Your task to perform on an android device: Open Wikipedia Image 0: 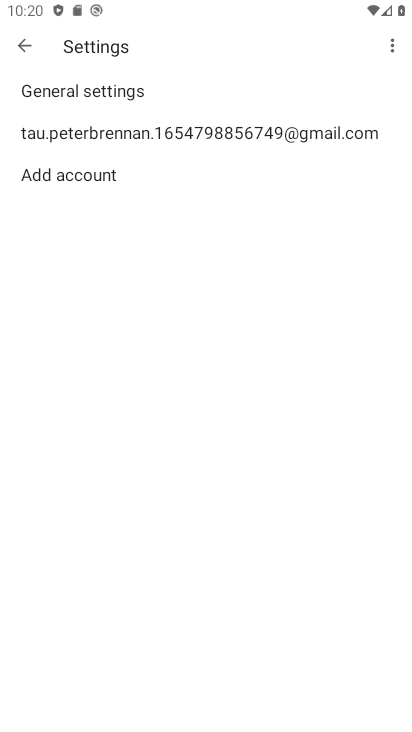
Step 0: press home button
Your task to perform on an android device: Open Wikipedia Image 1: 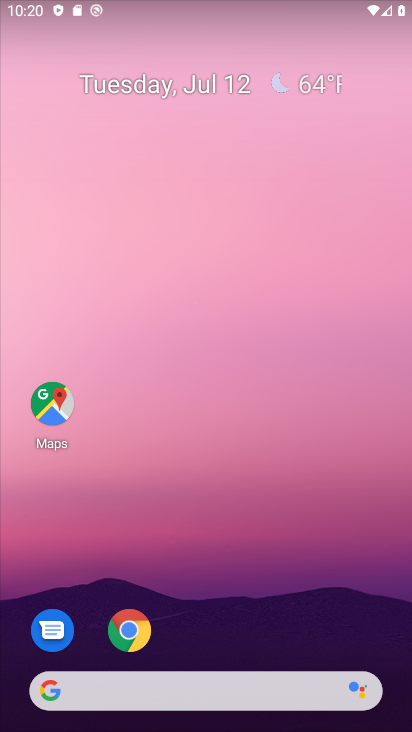
Step 1: drag from (367, 614) to (358, 229)
Your task to perform on an android device: Open Wikipedia Image 2: 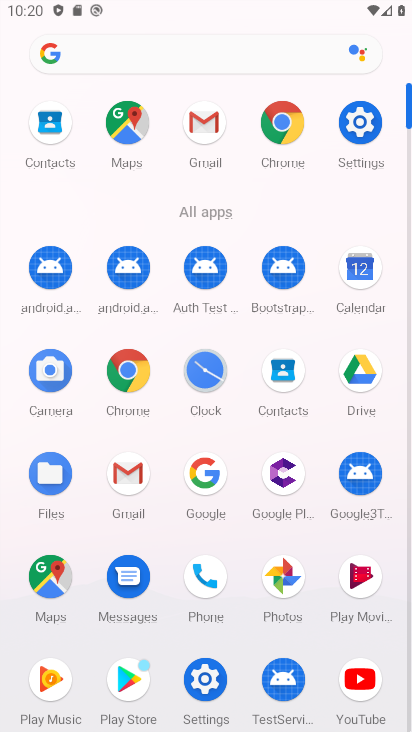
Step 2: click (135, 373)
Your task to perform on an android device: Open Wikipedia Image 3: 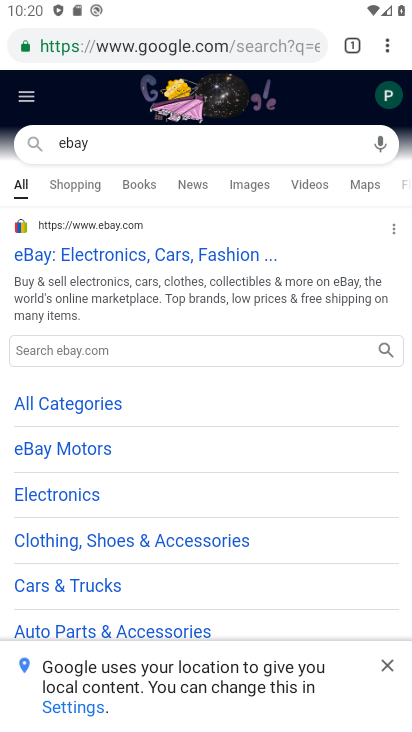
Step 3: click (215, 43)
Your task to perform on an android device: Open Wikipedia Image 4: 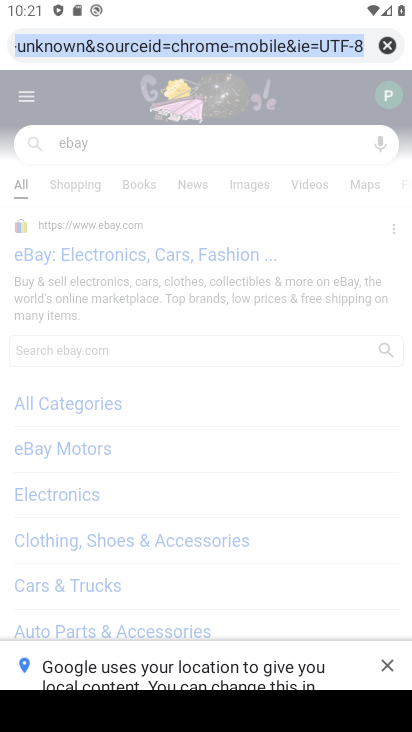
Step 4: type "wikipedia"
Your task to perform on an android device: Open Wikipedia Image 5: 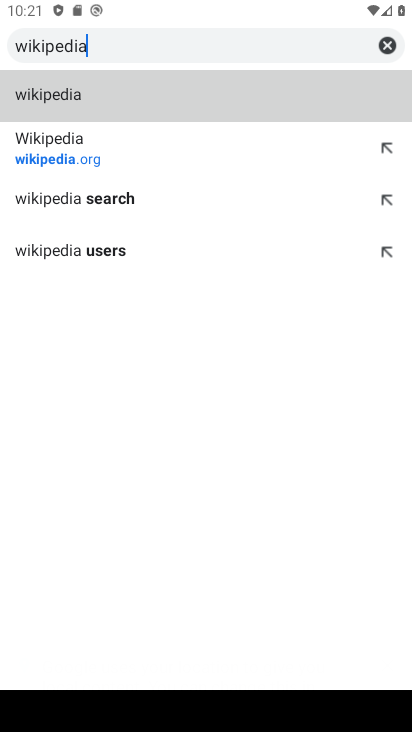
Step 5: click (167, 97)
Your task to perform on an android device: Open Wikipedia Image 6: 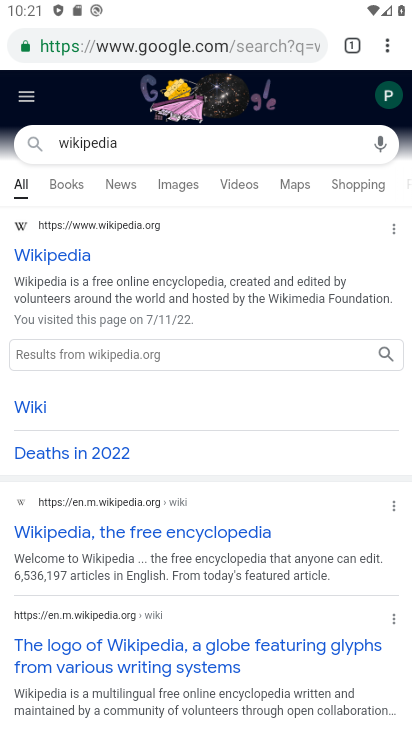
Step 6: task complete